Your task to perform on an android device: install app "Reddit" Image 0: 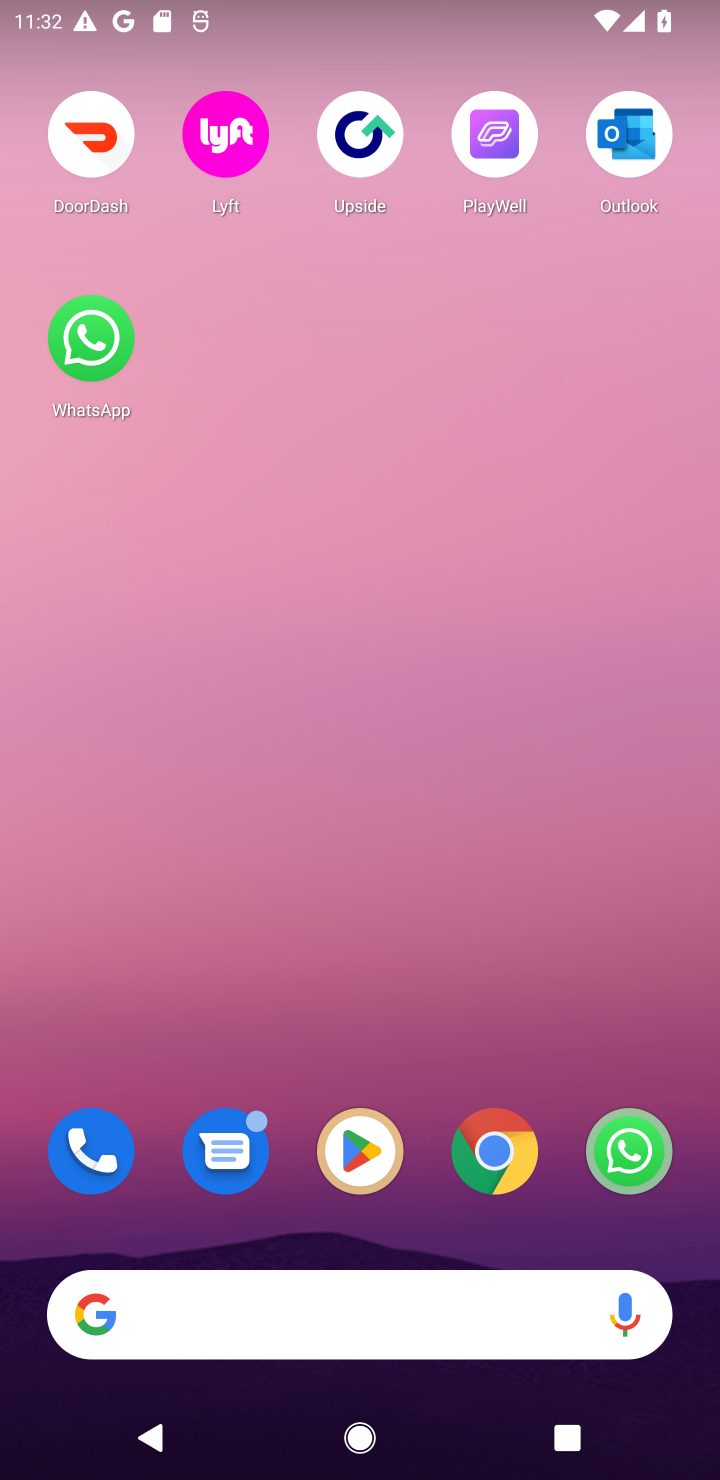
Step 0: click (346, 1118)
Your task to perform on an android device: install app "Reddit" Image 1: 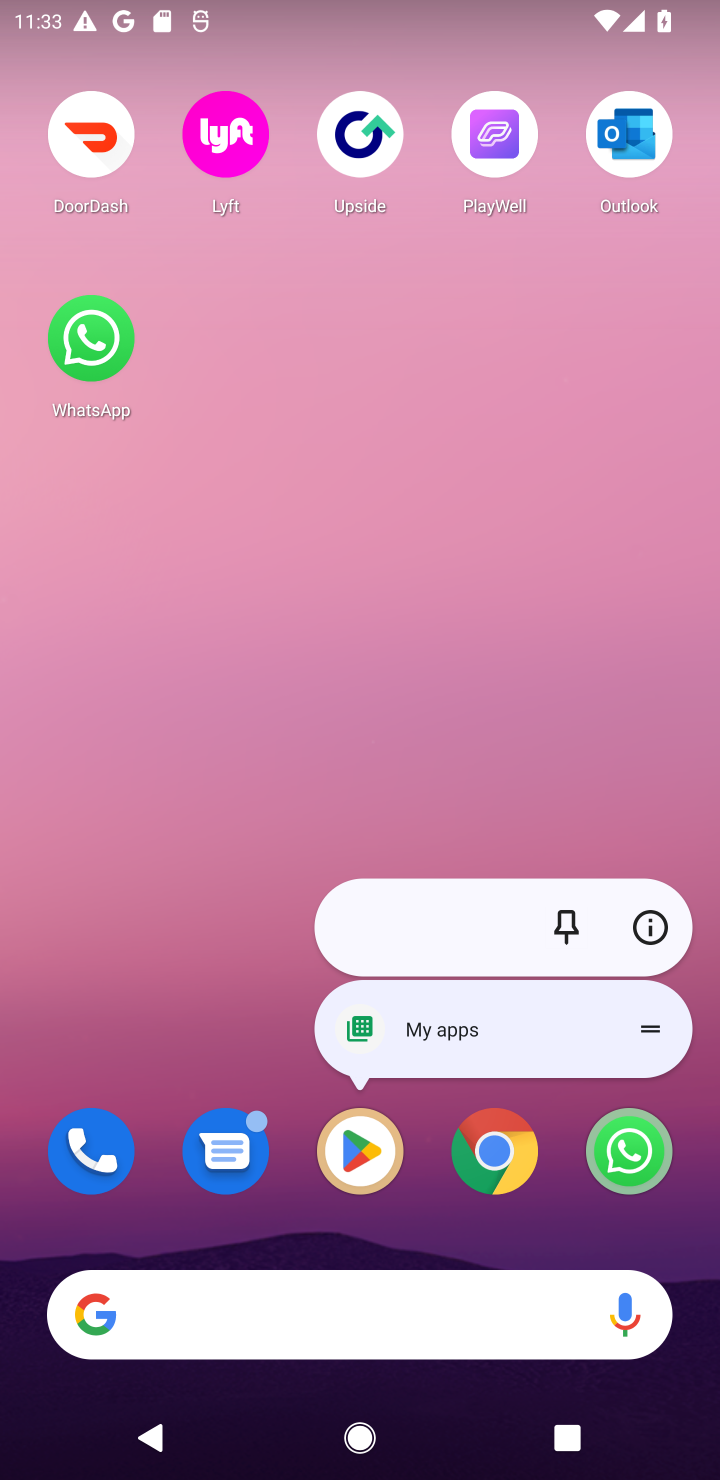
Step 1: click (378, 1139)
Your task to perform on an android device: install app "Reddit" Image 2: 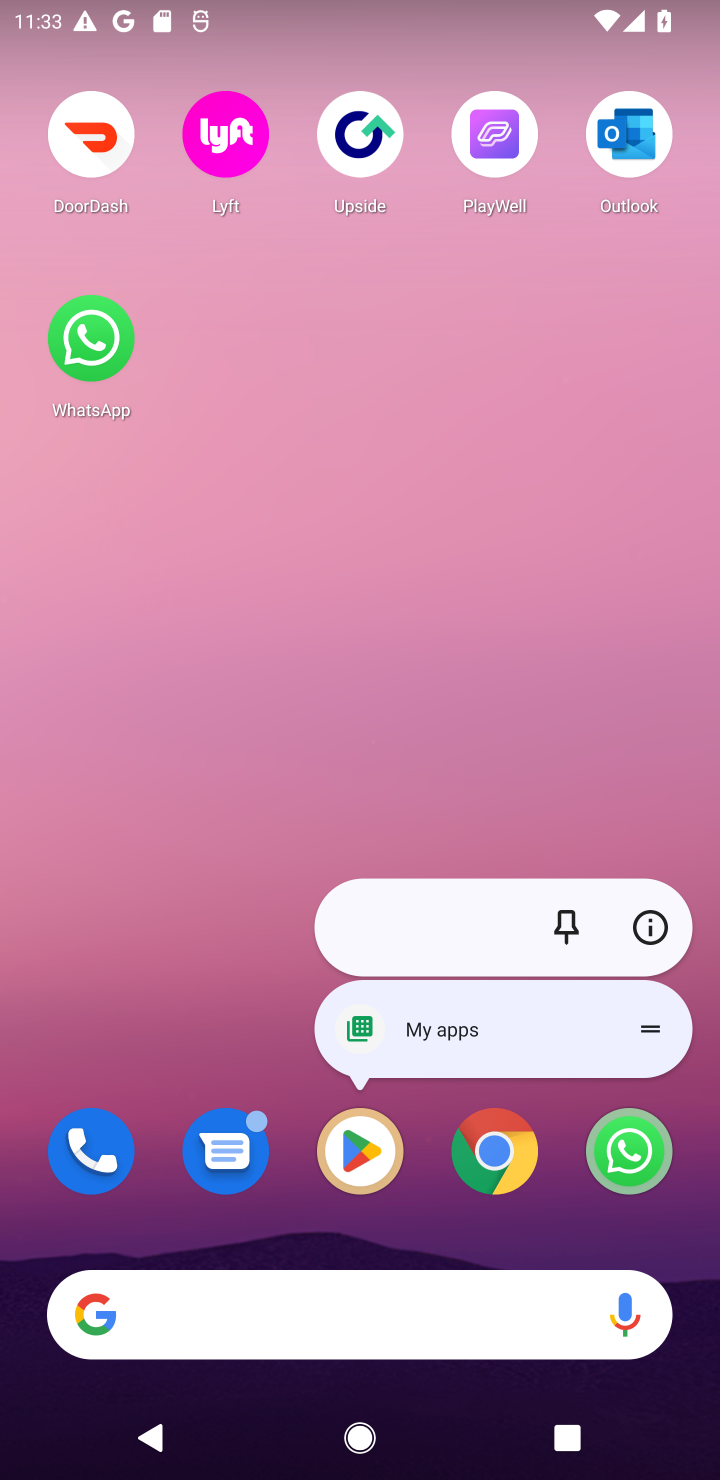
Step 2: click (378, 1139)
Your task to perform on an android device: install app "Reddit" Image 3: 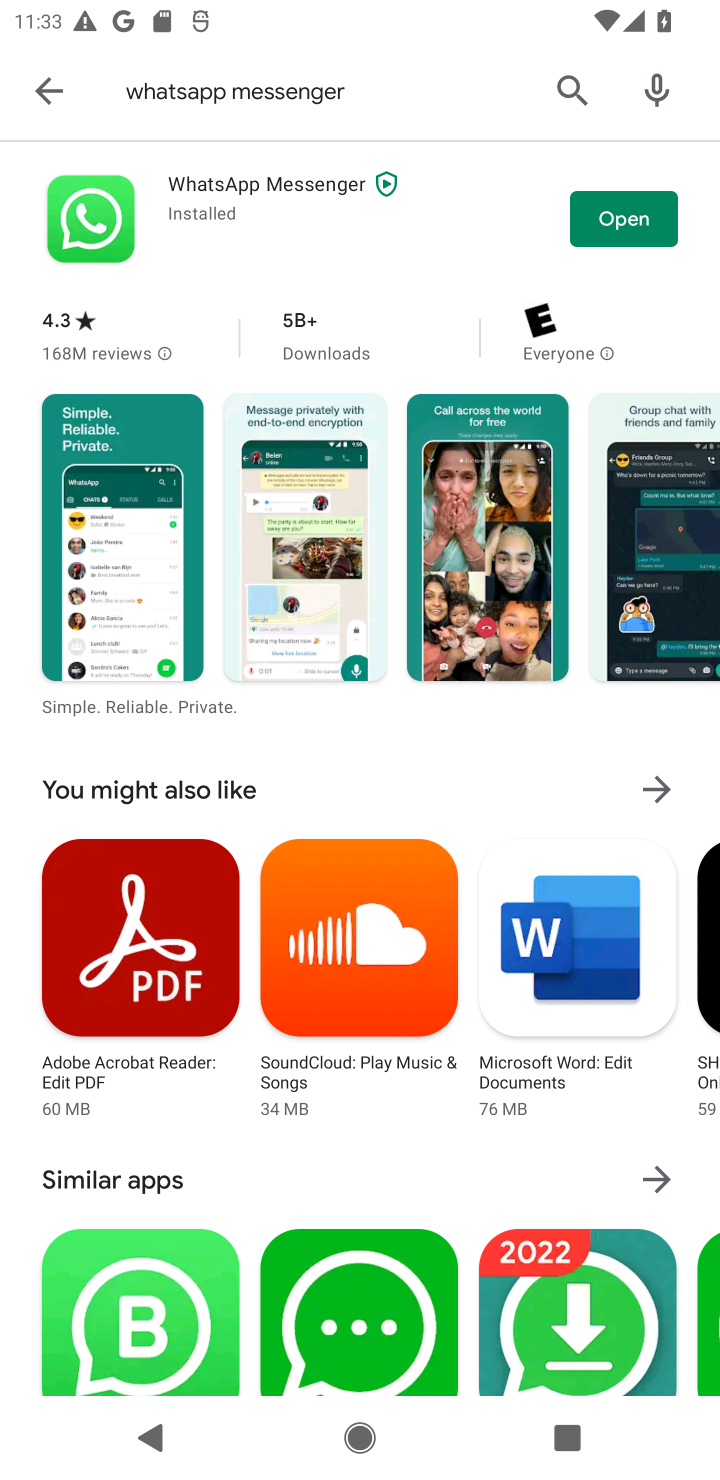
Step 3: click (580, 75)
Your task to perform on an android device: install app "Reddit" Image 4: 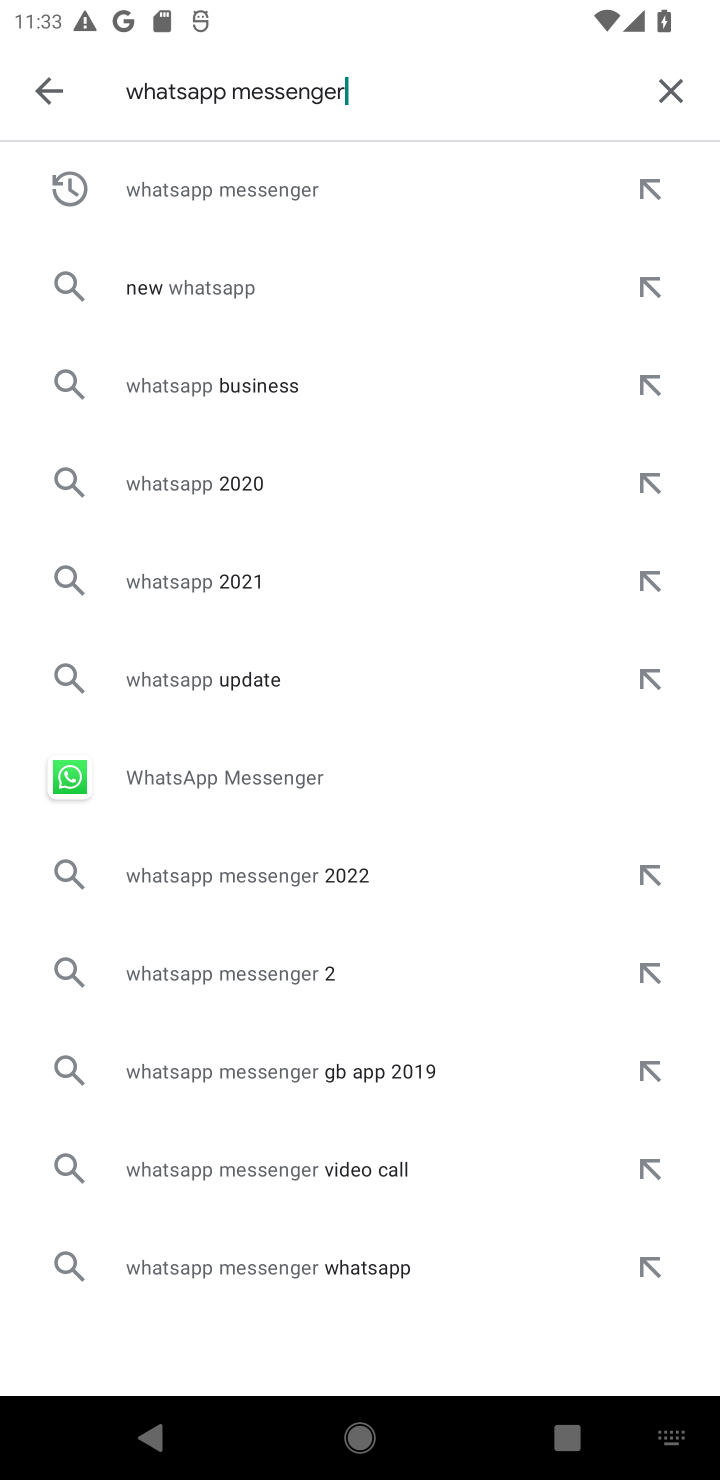
Step 4: click (672, 64)
Your task to perform on an android device: install app "Reddit" Image 5: 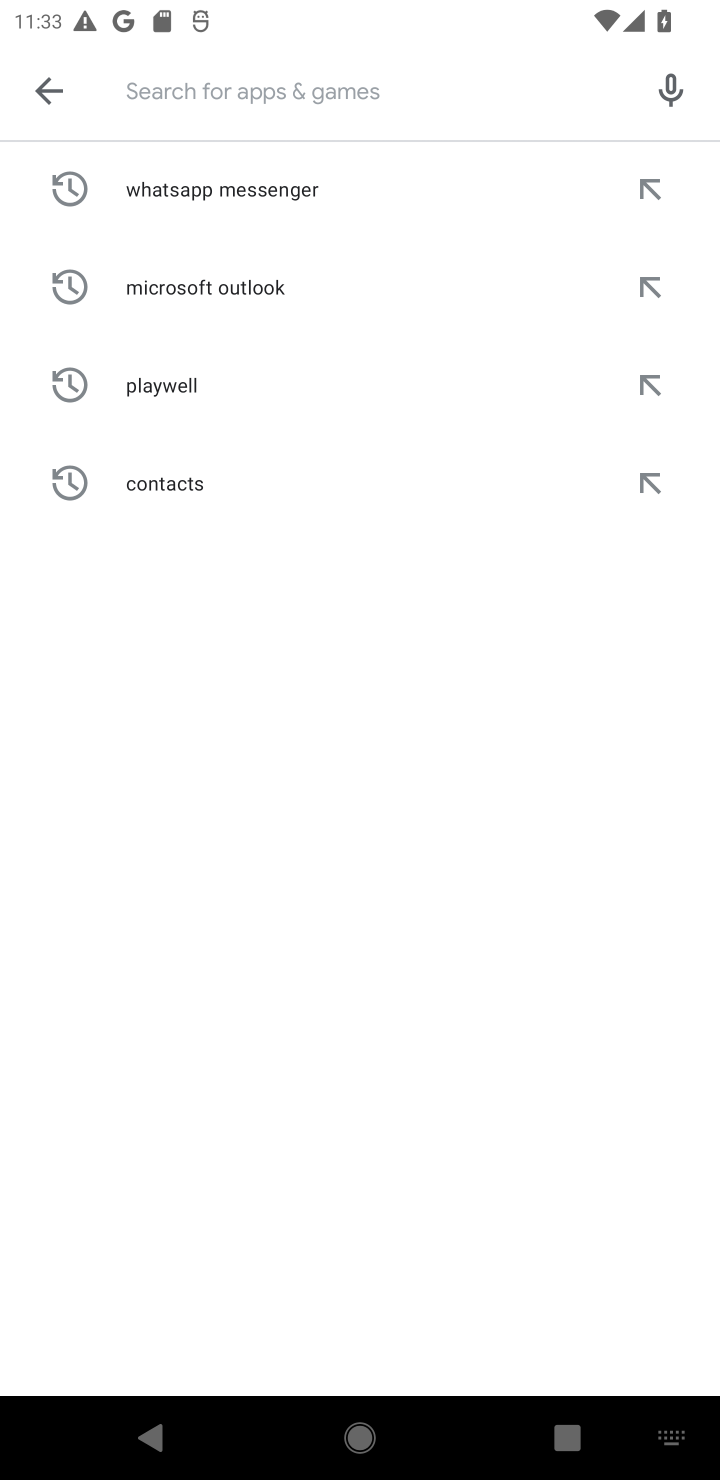
Step 5: type "Reddit"
Your task to perform on an android device: install app "Reddit" Image 6: 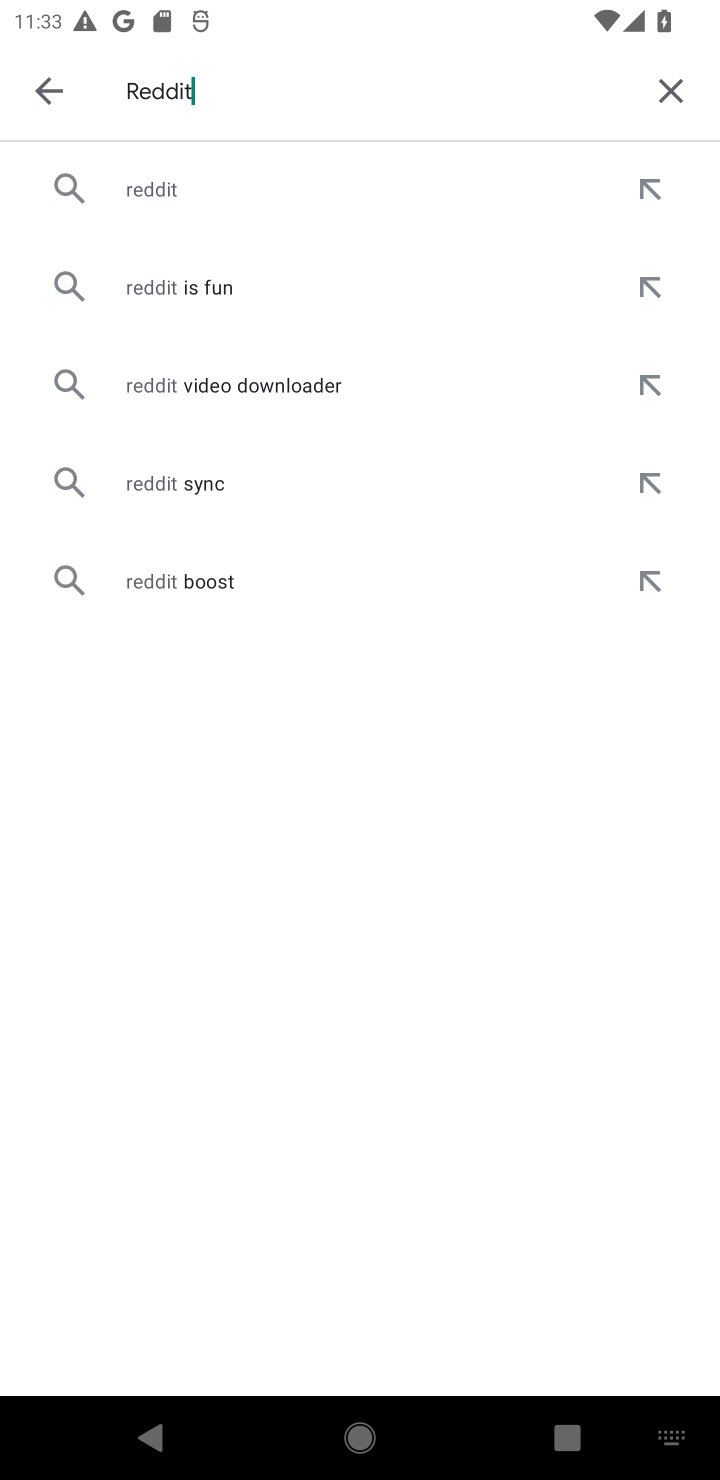
Step 6: click (284, 181)
Your task to perform on an android device: install app "Reddit" Image 7: 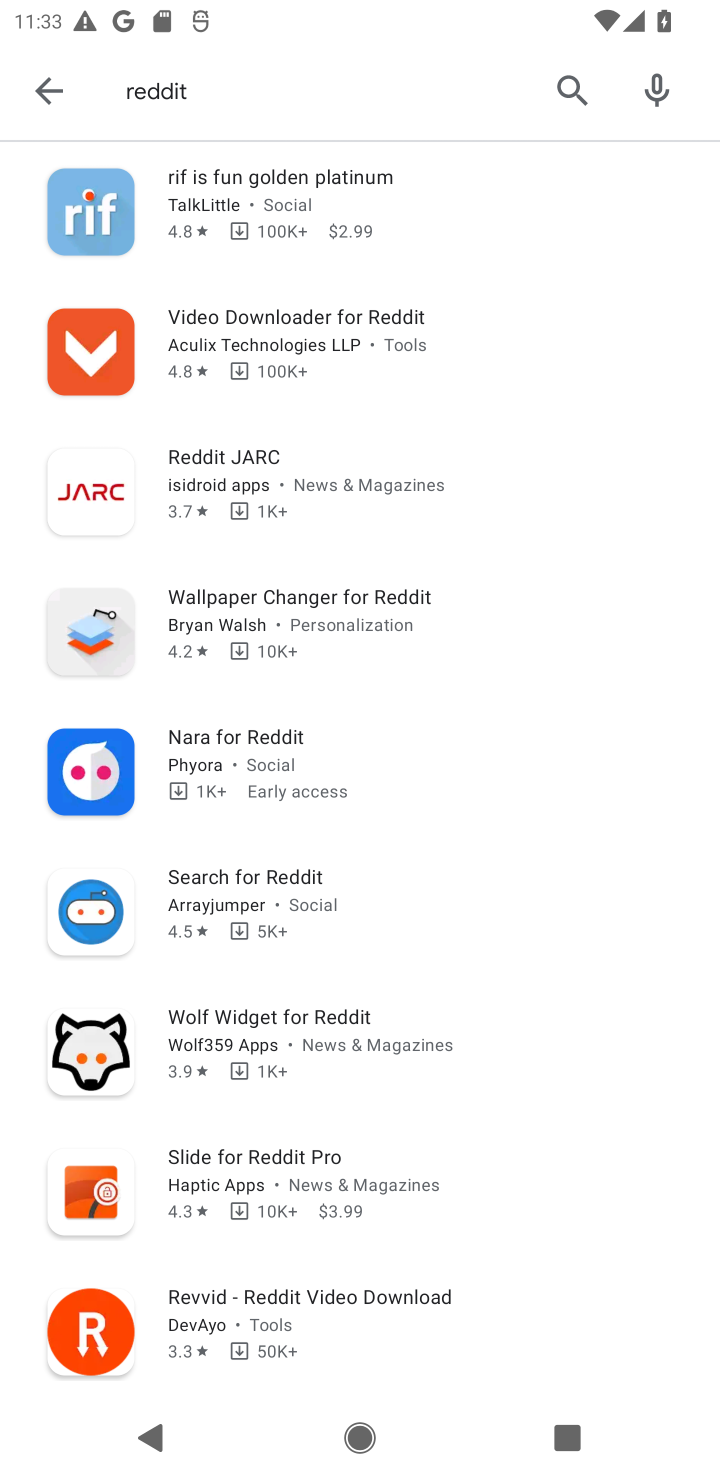
Step 7: task complete